Your task to perform on an android device: Go to battery settings Image 0: 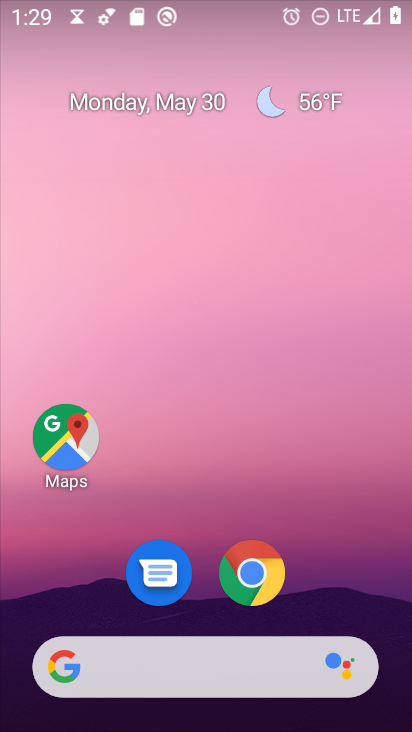
Step 0: drag from (330, 572) to (406, 1)
Your task to perform on an android device: Go to battery settings Image 1: 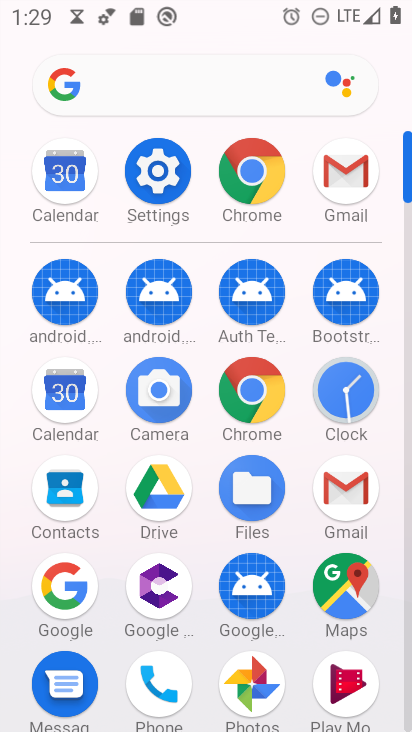
Step 1: click (127, 193)
Your task to perform on an android device: Go to battery settings Image 2: 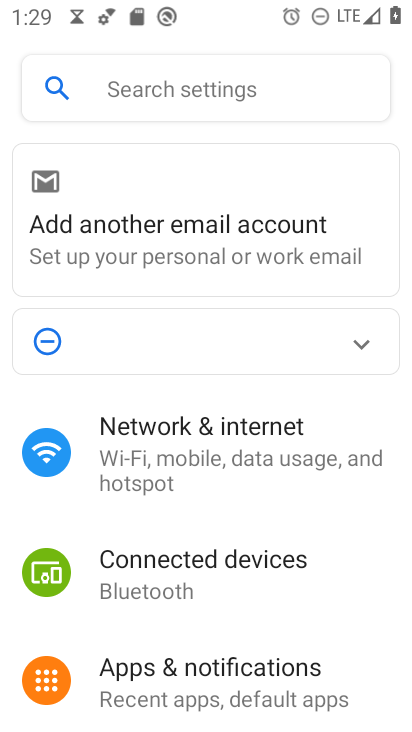
Step 2: drag from (200, 686) to (304, 89)
Your task to perform on an android device: Go to battery settings Image 3: 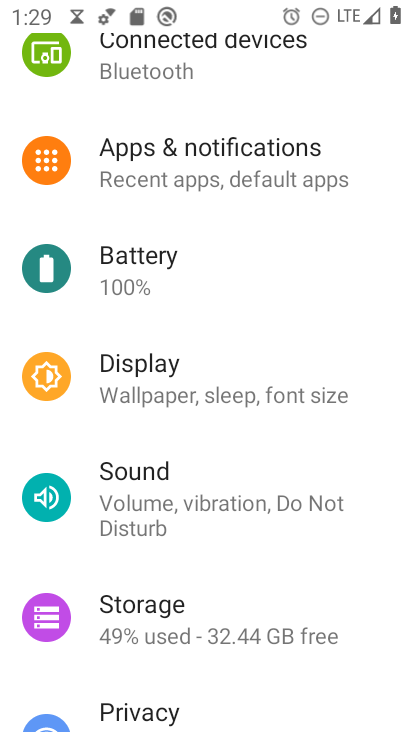
Step 3: click (185, 290)
Your task to perform on an android device: Go to battery settings Image 4: 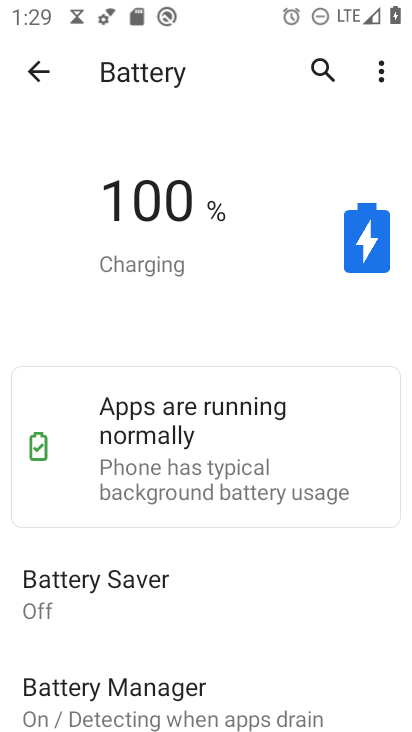
Step 4: task complete